Your task to perform on an android device: change your default location settings in chrome Image 0: 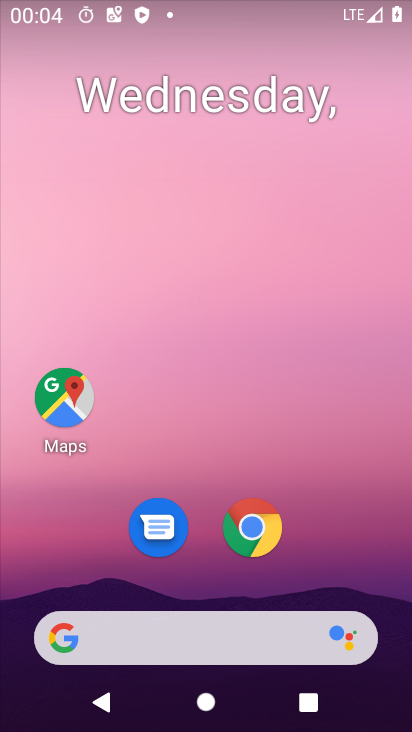
Step 0: drag from (169, 592) to (252, 93)
Your task to perform on an android device: change your default location settings in chrome Image 1: 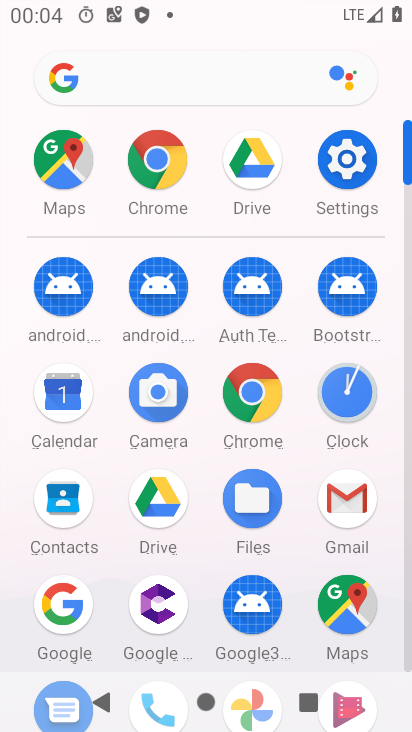
Step 1: click (247, 398)
Your task to perform on an android device: change your default location settings in chrome Image 2: 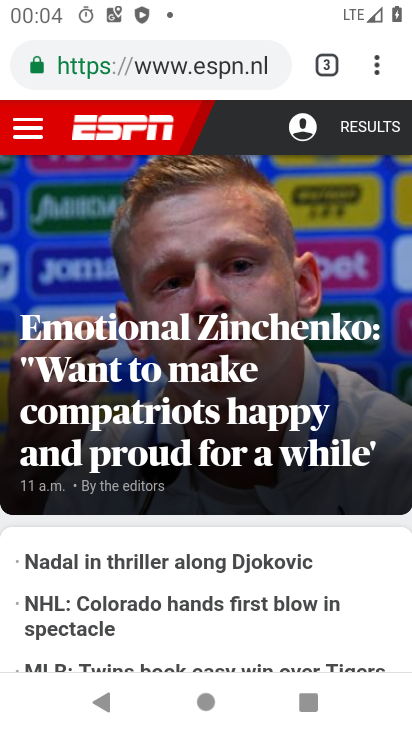
Step 2: drag from (380, 66) to (175, 580)
Your task to perform on an android device: change your default location settings in chrome Image 3: 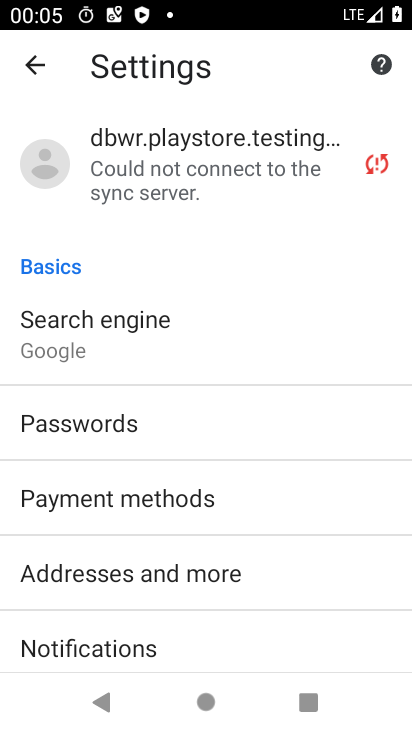
Step 3: drag from (170, 569) to (264, 96)
Your task to perform on an android device: change your default location settings in chrome Image 4: 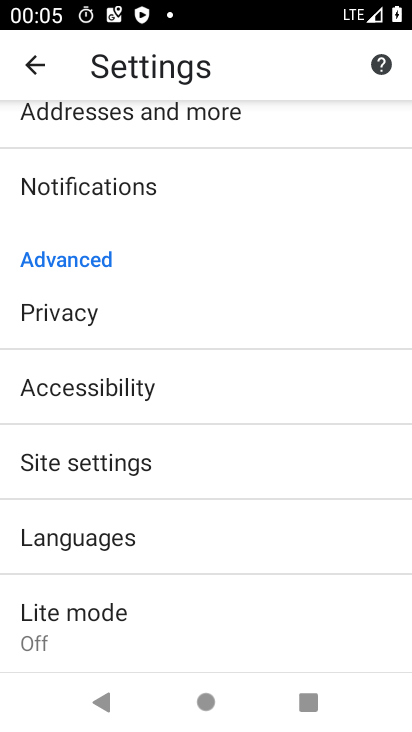
Step 4: drag from (201, 552) to (244, 248)
Your task to perform on an android device: change your default location settings in chrome Image 5: 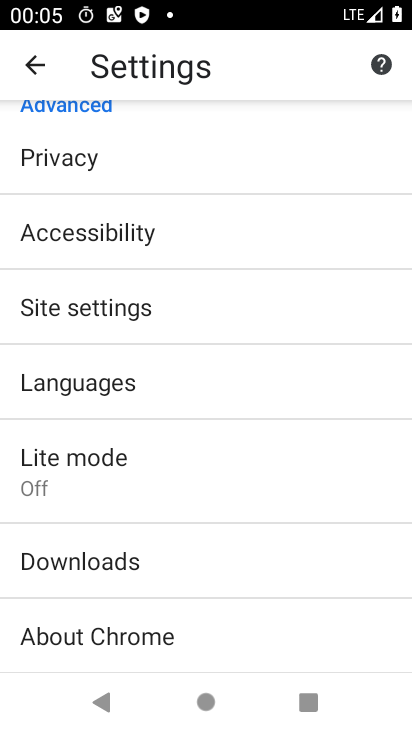
Step 5: drag from (141, 159) to (142, 628)
Your task to perform on an android device: change your default location settings in chrome Image 6: 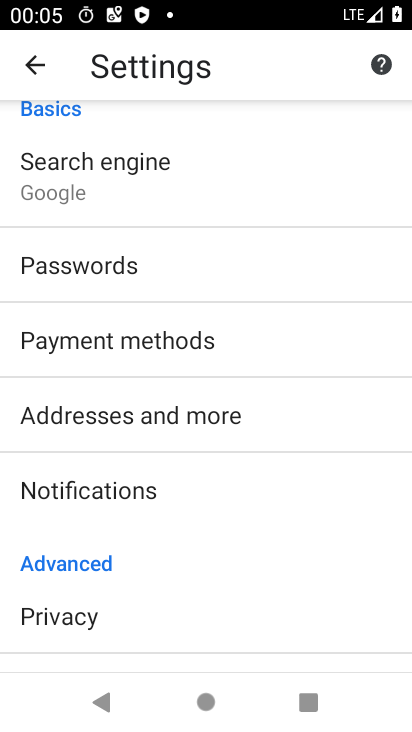
Step 6: drag from (165, 189) to (191, 651)
Your task to perform on an android device: change your default location settings in chrome Image 7: 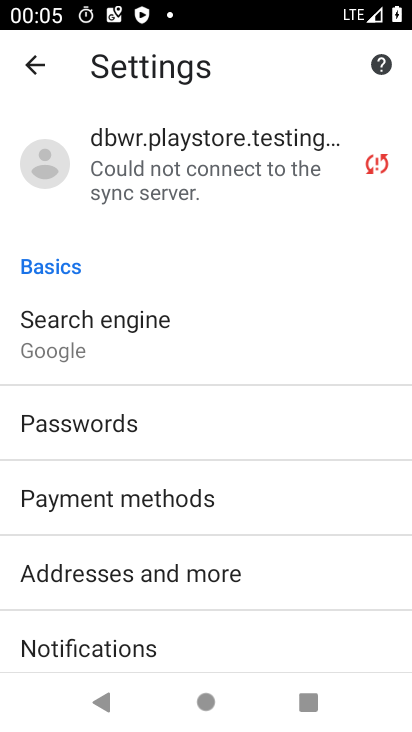
Step 7: drag from (218, 145) to (224, 72)
Your task to perform on an android device: change your default location settings in chrome Image 8: 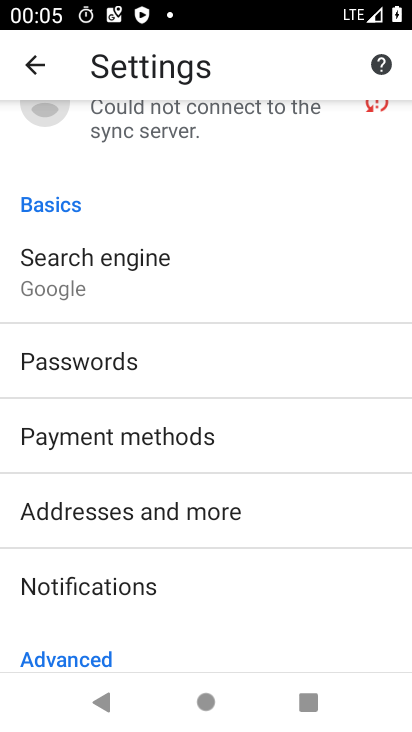
Step 8: drag from (185, 449) to (284, 128)
Your task to perform on an android device: change your default location settings in chrome Image 9: 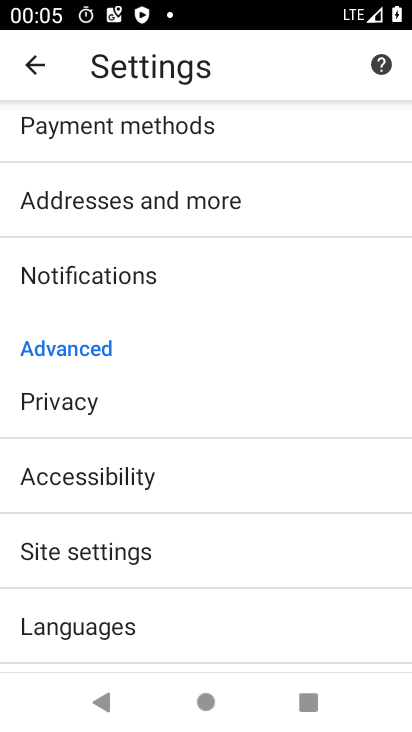
Step 9: click (117, 558)
Your task to perform on an android device: change your default location settings in chrome Image 10: 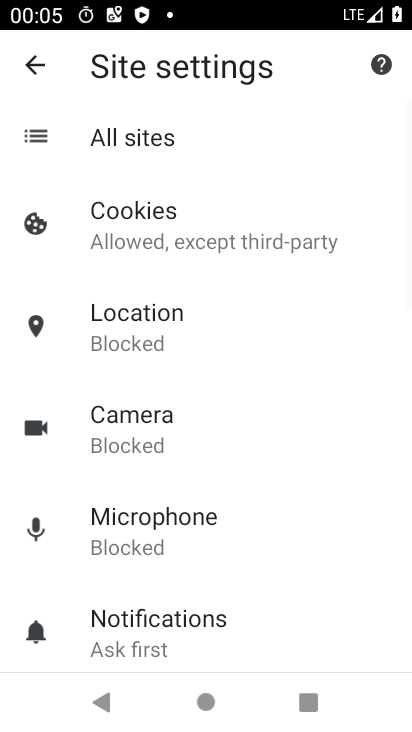
Step 10: click (116, 318)
Your task to perform on an android device: change your default location settings in chrome Image 11: 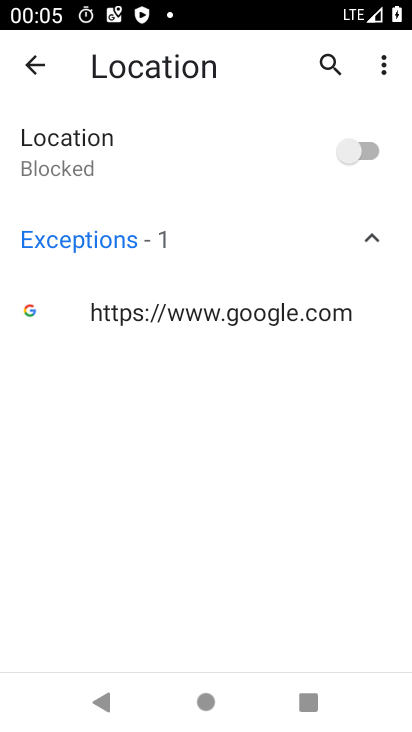
Step 11: drag from (173, 494) to (242, 194)
Your task to perform on an android device: change your default location settings in chrome Image 12: 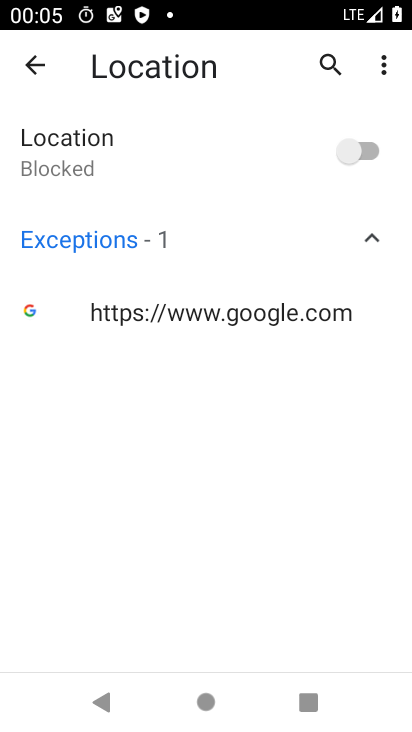
Step 12: click (332, 142)
Your task to perform on an android device: change your default location settings in chrome Image 13: 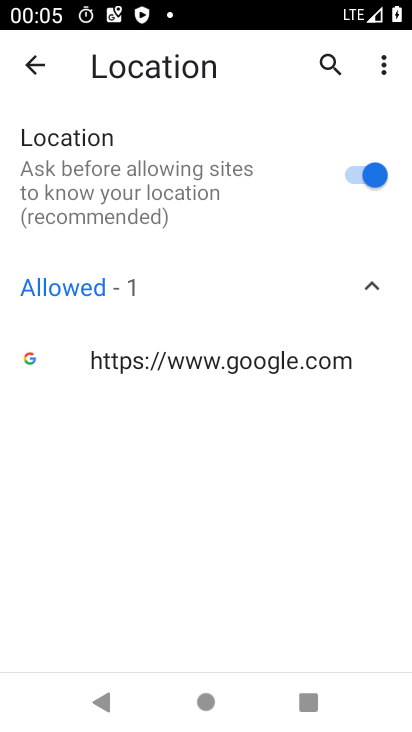
Step 13: task complete